Your task to perform on an android device: Show me popular videos on Youtube Image 0: 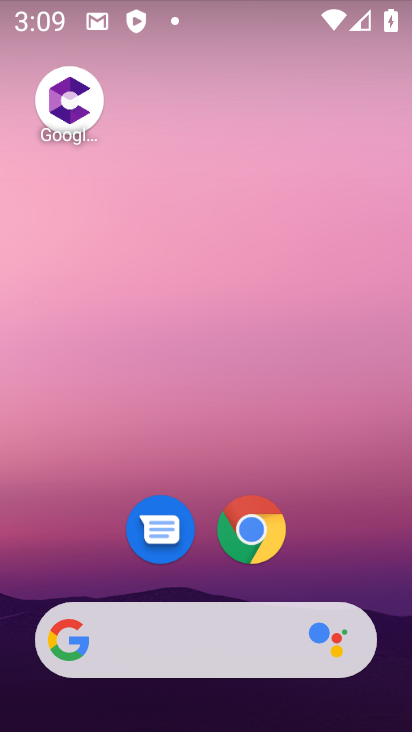
Step 0: drag from (176, 564) to (190, 76)
Your task to perform on an android device: Show me popular videos on Youtube Image 1: 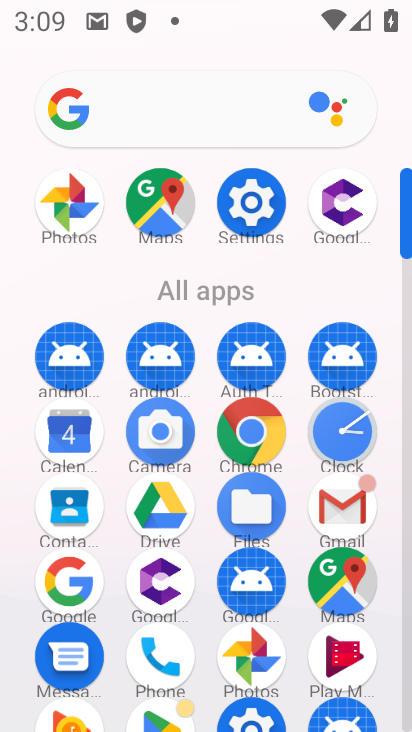
Step 1: drag from (183, 658) to (233, 187)
Your task to perform on an android device: Show me popular videos on Youtube Image 2: 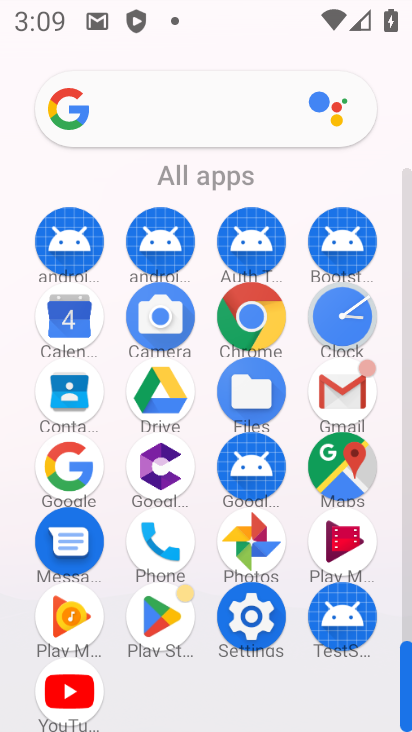
Step 2: click (60, 698)
Your task to perform on an android device: Show me popular videos on Youtube Image 3: 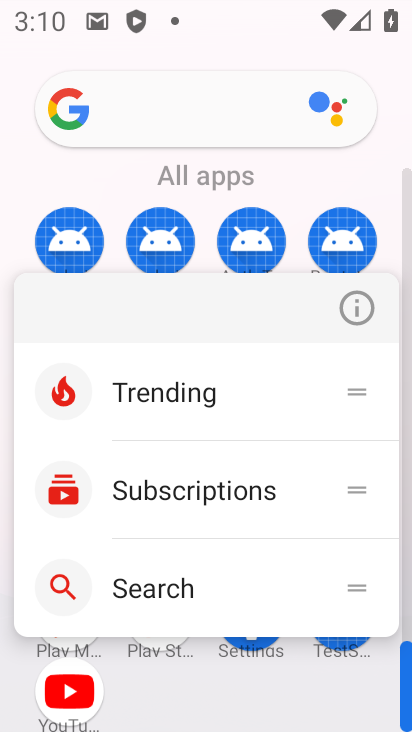
Step 3: click (75, 690)
Your task to perform on an android device: Show me popular videos on Youtube Image 4: 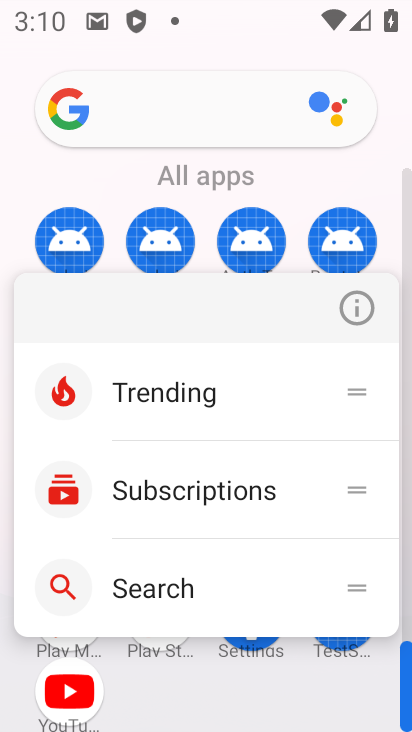
Step 4: click (75, 690)
Your task to perform on an android device: Show me popular videos on Youtube Image 5: 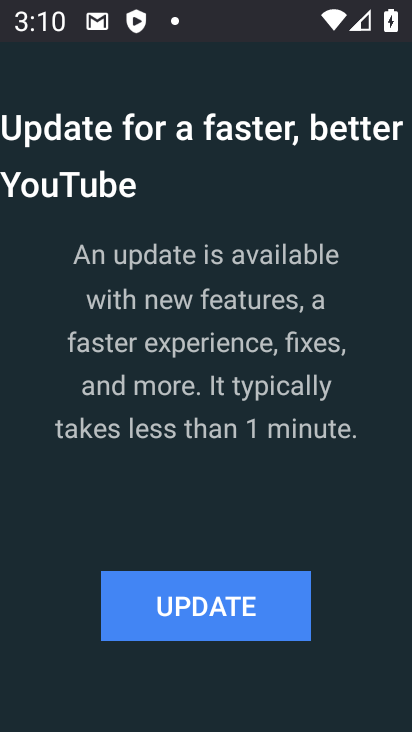
Step 5: click (208, 601)
Your task to perform on an android device: Show me popular videos on Youtube Image 6: 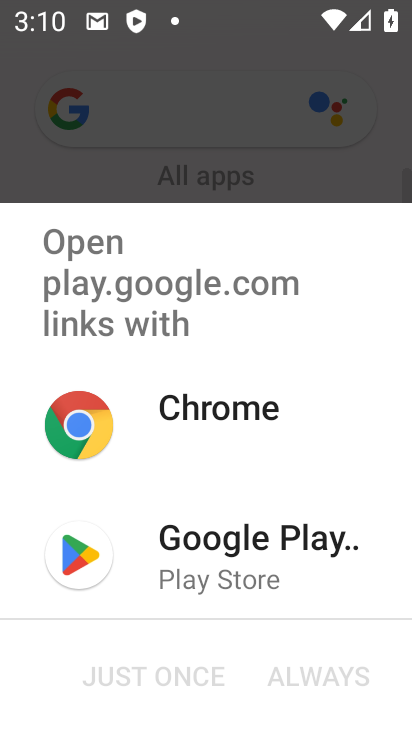
Step 6: click (202, 542)
Your task to perform on an android device: Show me popular videos on Youtube Image 7: 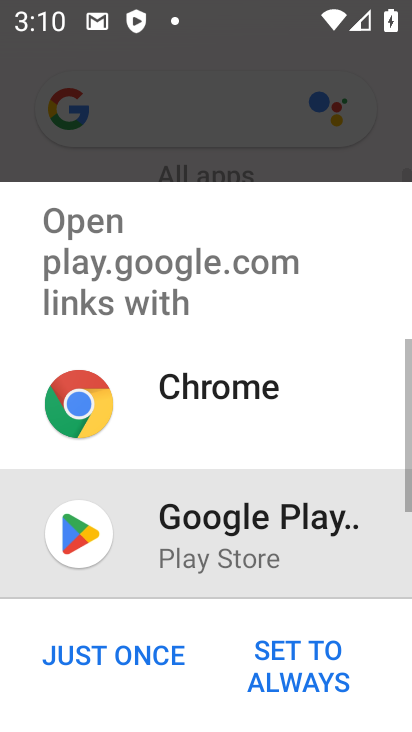
Step 7: click (147, 666)
Your task to perform on an android device: Show me popular videos on Youtube Image 8: 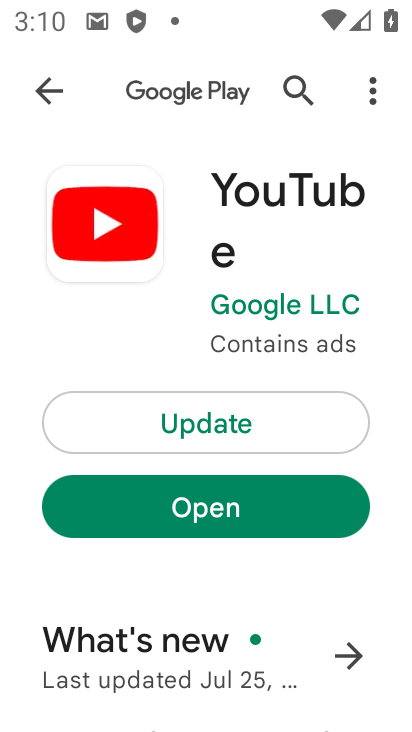
Step 8: click (182, 420)
Your task to perform on an android device: Show me popular videos on Youtube Image 9: 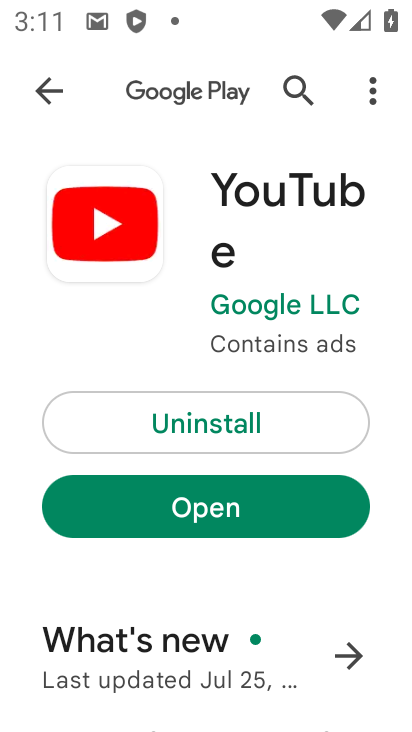
Step 9: click (194, 522)
Your task to perform on an android device: Show me popular videos on Youtube Image 10: 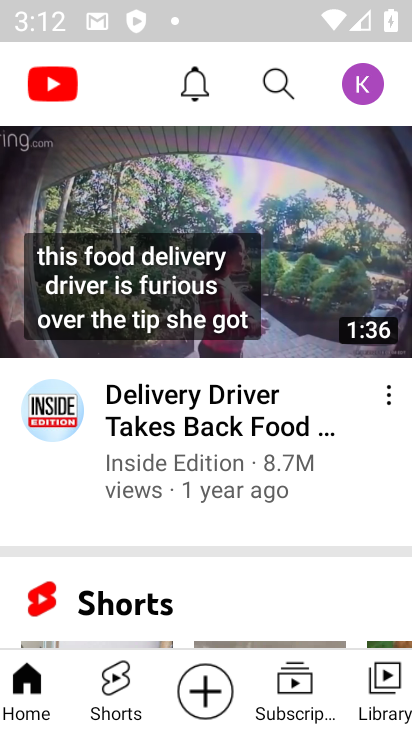
Step 10: drag from (191, 510) to (202, 109)
Your task to perform on an android device: Show me popular videos on Youtube Image 11: 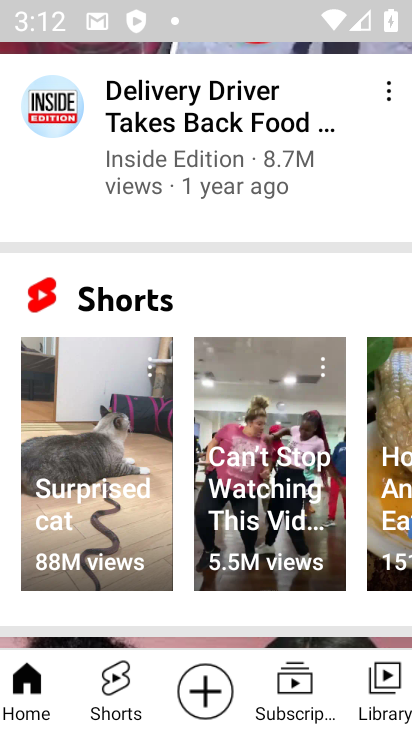
Step 11: drag from (93, 585) to (136, 216)
Your task to perform on an android device: Show me popular videos on Youtube Image 12: 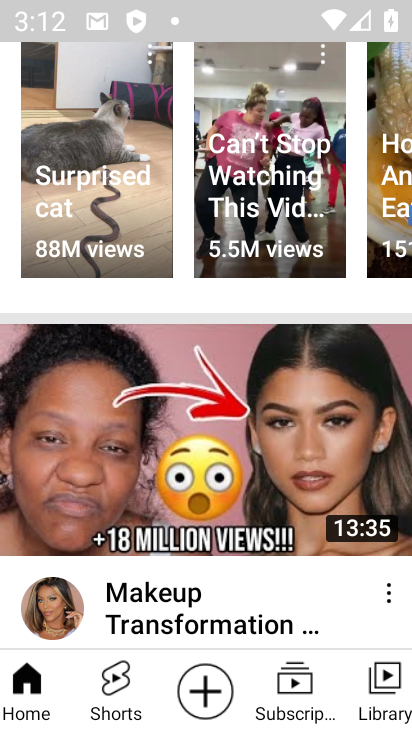
Step 12: click (88, 219)
Your task to perform on an android device: Show me popular videos on Youtube Image 13: 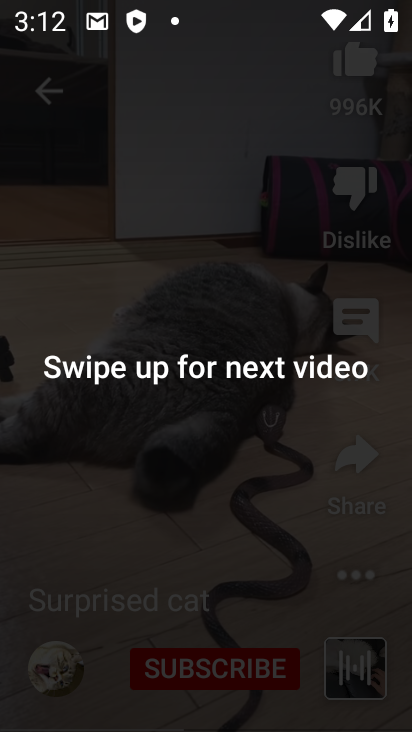
Step 13: task complete